Your task to perform on an android device: Open Chrome and go to settings Image 0: 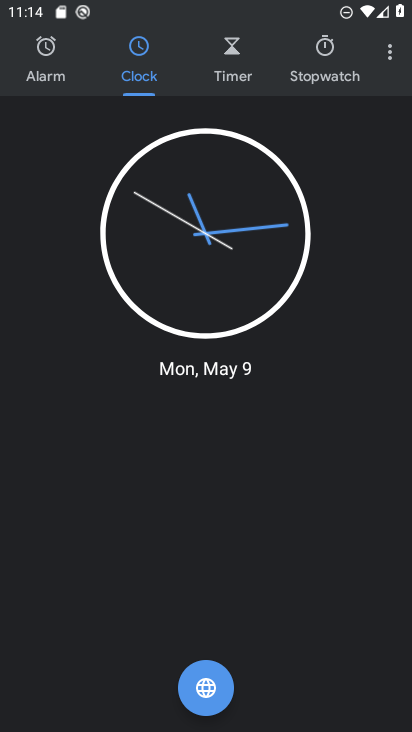
Step 0: press home button
Your task to perform on an android device: Open Chrome and go to settings Image 1: 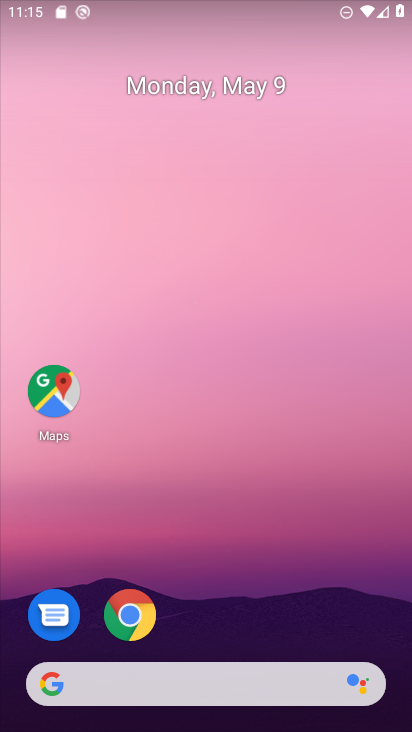
Step 1: drag from (276, 708) to (283, 262)
Your task to perform on an android device: Open Chrome and go to settings Image 2: 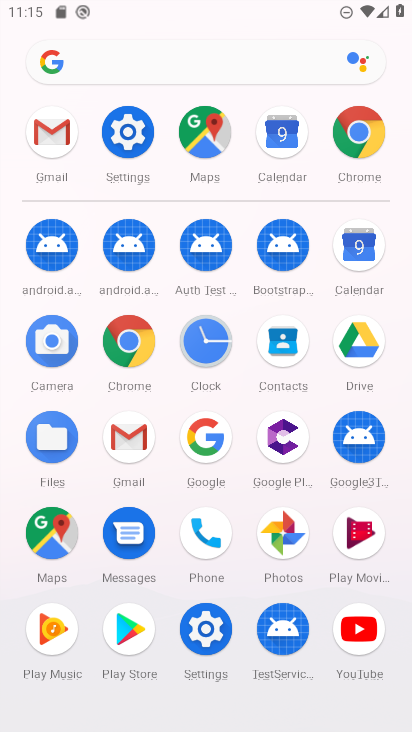
Step 2: click (135, 139)
Your task to perform on an android device: Open Chrome and go to settings Image 3: 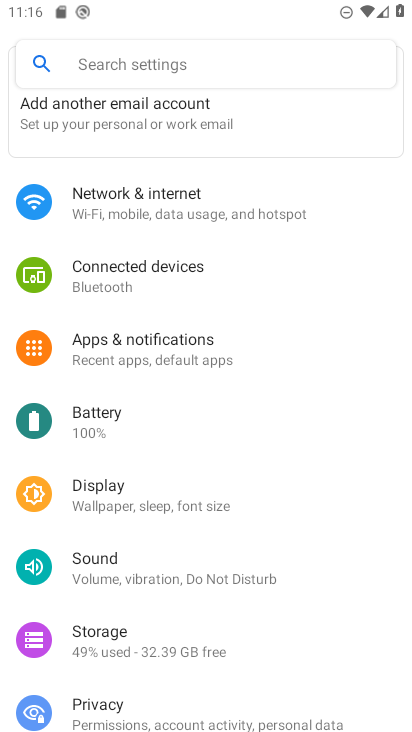
Step 3: press home button
Your task to perform on an android device: Open Chrome and go to settings Image 4: 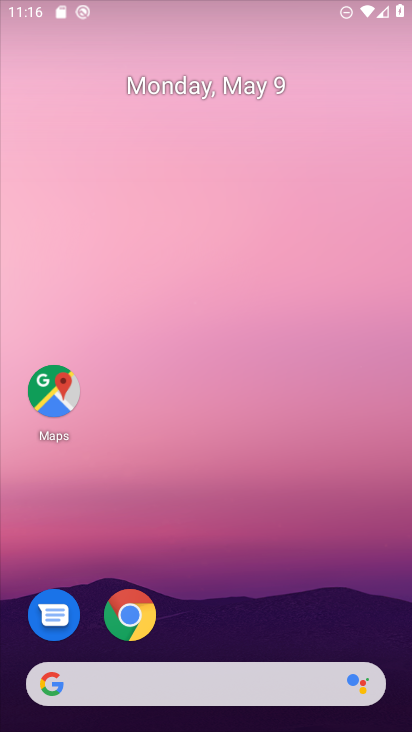
Step 4: drag from (273, 706) to (305, 138)
Your task to perform on an android device: Open Chrome and go to settings Image 5: 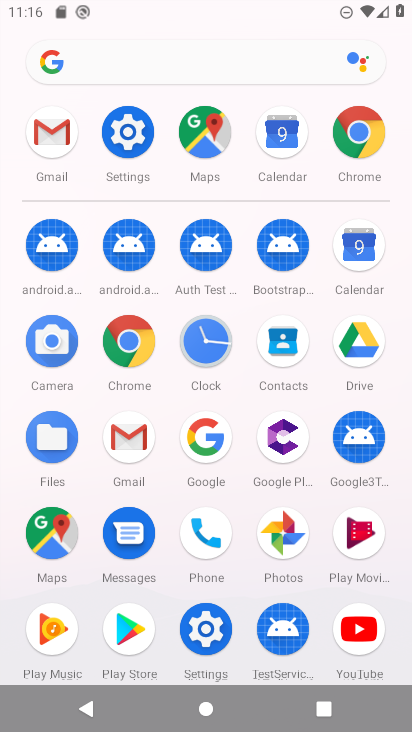
Step 5: click (351, 138)
Your task to perform on an android device: Open Chrome and go to settings Image 6: 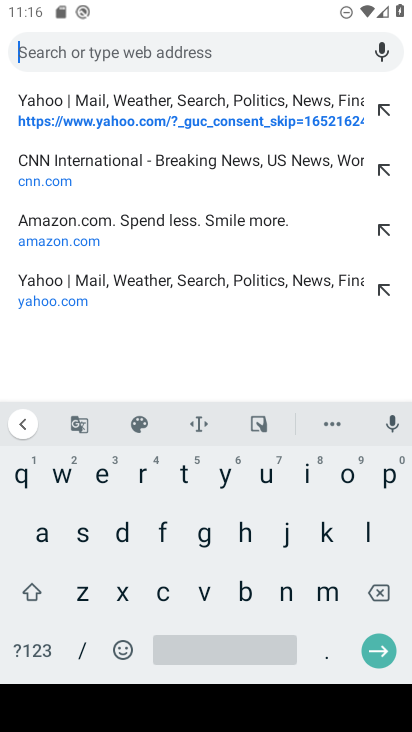
Step 6: press back button
Your task to perform on an android device: Open Chrome and go to settings Image 7: 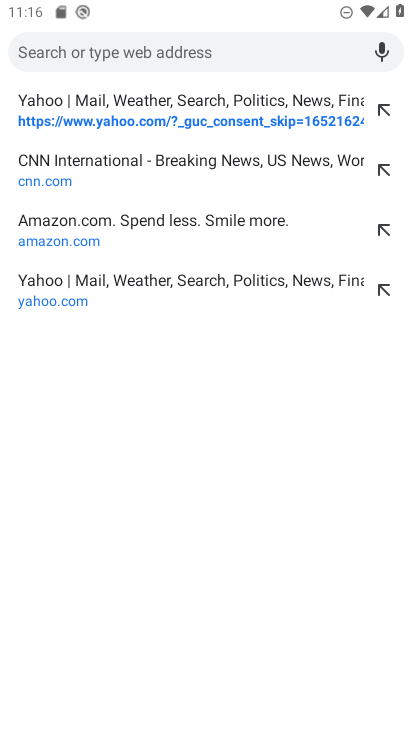
Step 7: press back button
Your task to perform on an android device: Open Chrome and go to settings Image 8: 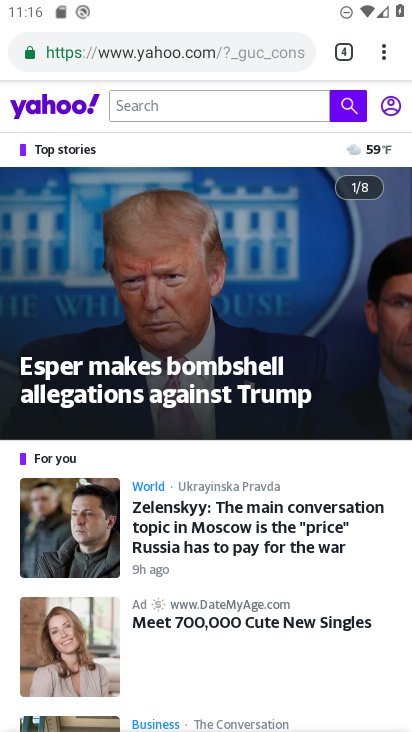
Step 8: click (383, 64)
Your task to perform on an android device: Open Chrome and go to settings Image 9: 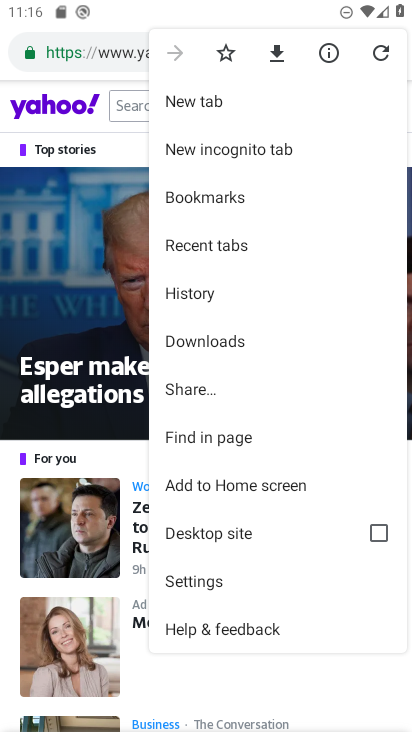
Step 9: click (227, 582)
Your task to perform on an android device: Open Chrome and go to settings Image 10: 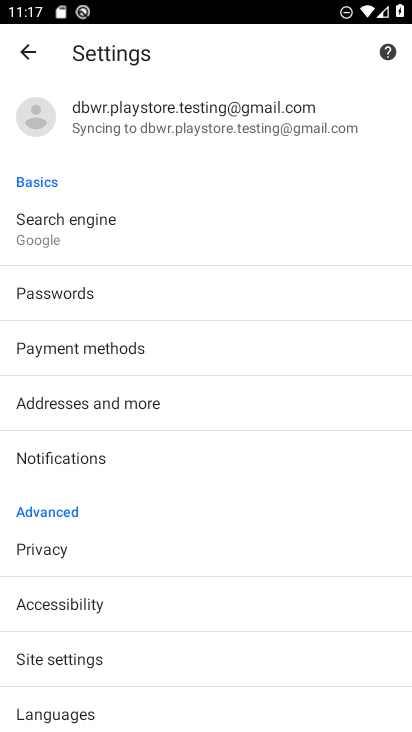
Step 10: task complete